Your task to perform on an android device: check google app version Image 0: 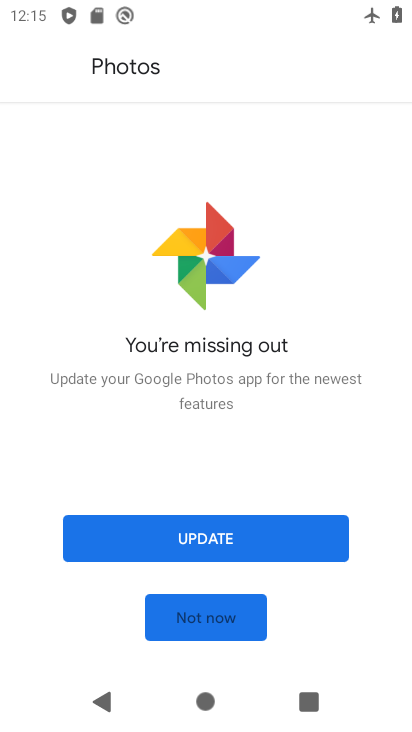
Step 0: press home button
Your task to perform on an android device: check google app version Image 1: 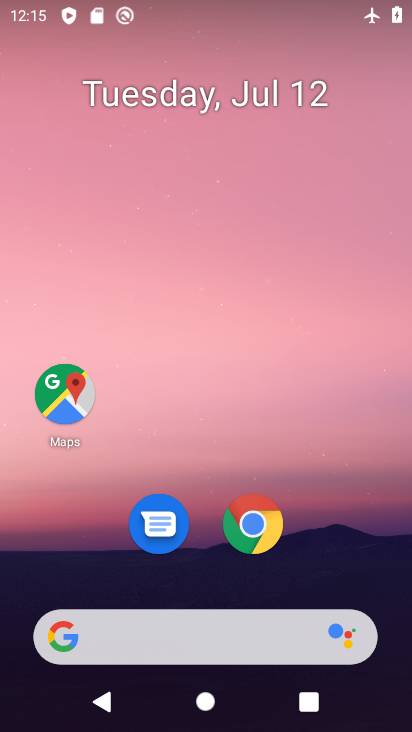
Step 1: click (240, 641)
Your task to perform on an android device: check google app version Image 2: 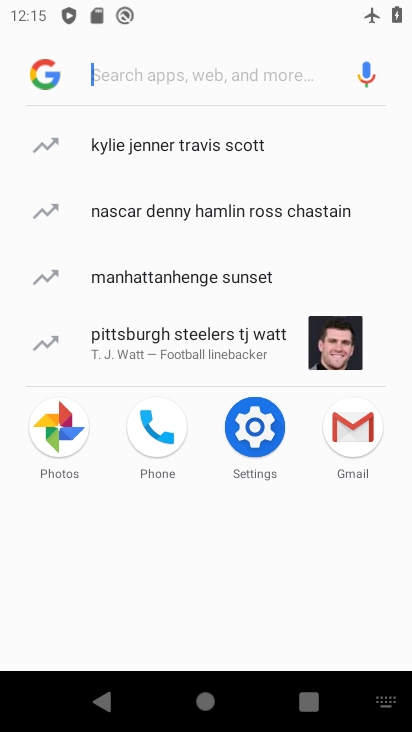
Step 2: click (38, 75)
Your task to perform on an android device: check google app version Image 3: 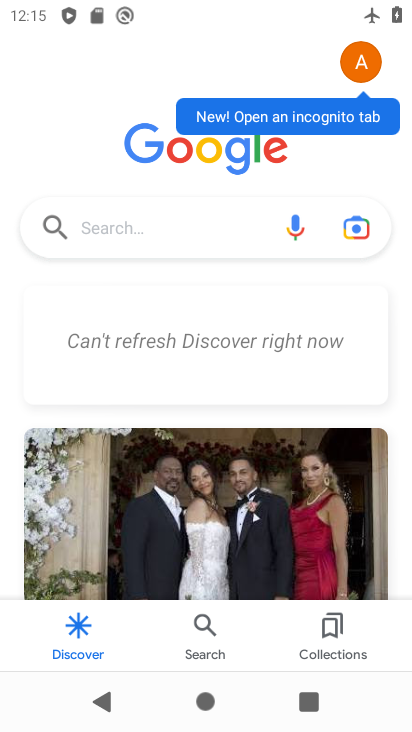
Step 3: click (369, 59)
Your task to perform on an android device: check google app version Image 4: 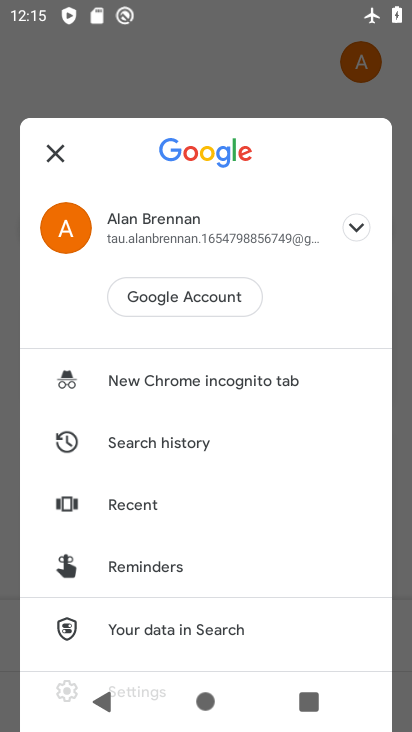
Step 4: drag from (211, 551) to (223, 281)
Your task to perform on an android device: check google app version Image 5: 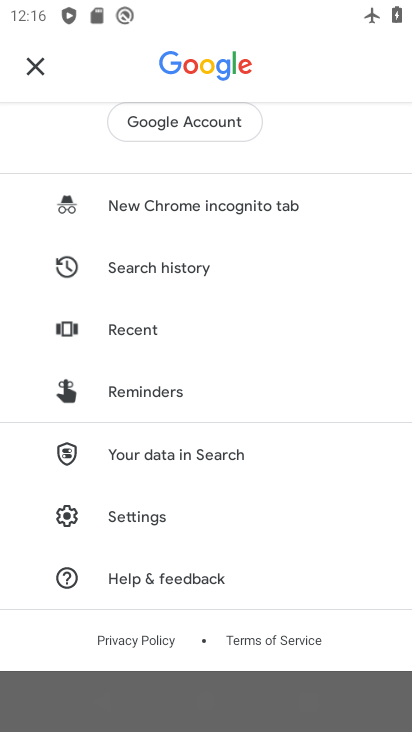
Step 5: click (153, 513)
Your task to perform on an android device: check google app version Image 6: 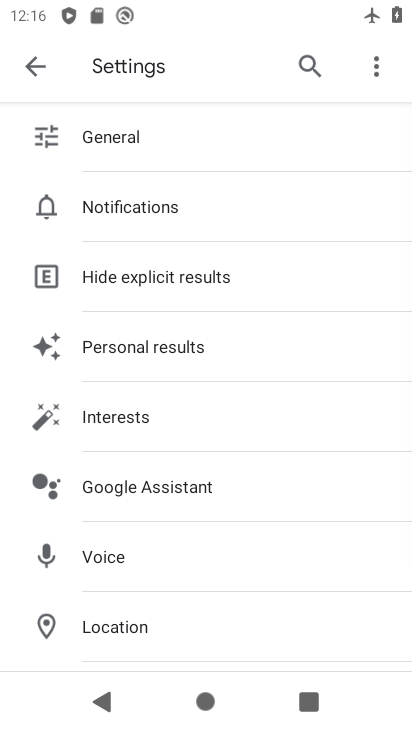
Step 6: drag from (194, 560) to (207, 205)
Your task to perform on an android device: check google app version Image 7: 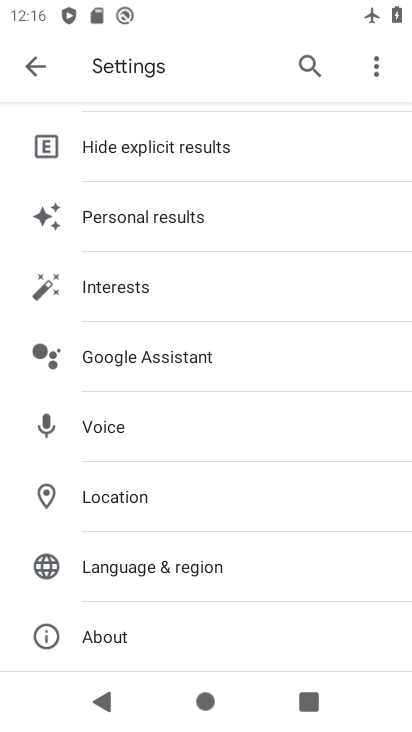
Step 7: click (106, 629)
Your task to perform on an android device: check google app version Image 8: 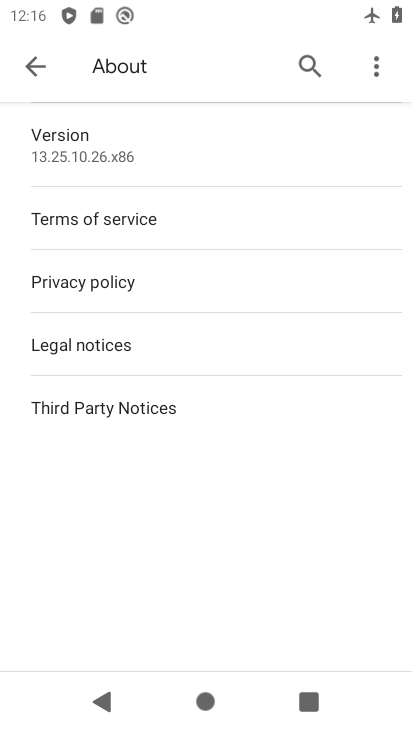
Step 8: task complete